Your task to perform on an android device: empty trash in google photos Image 0: 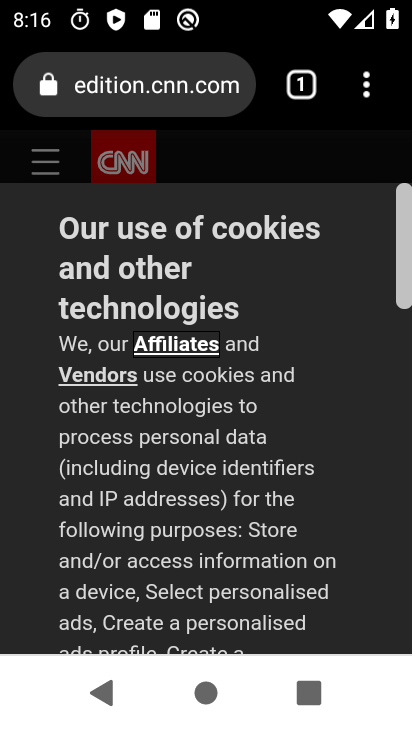
Step 0: press back button
Your task to perform on an android device: empty trash in google photos Image 1: 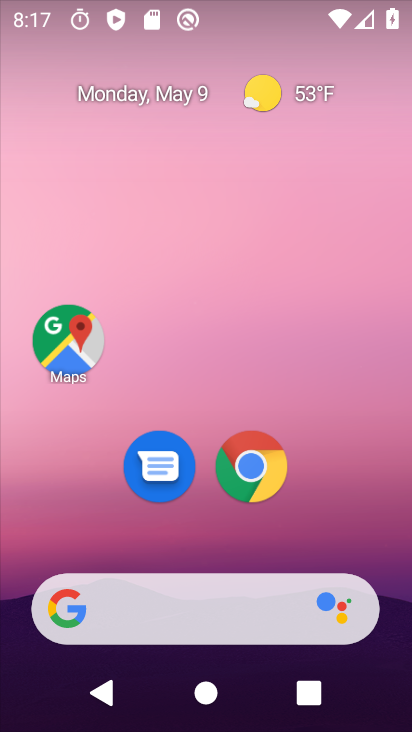
Step 1: drag from (319, 525) to (253, 74)
Your task to perform on an android device: empty trash in google photos Image 2: 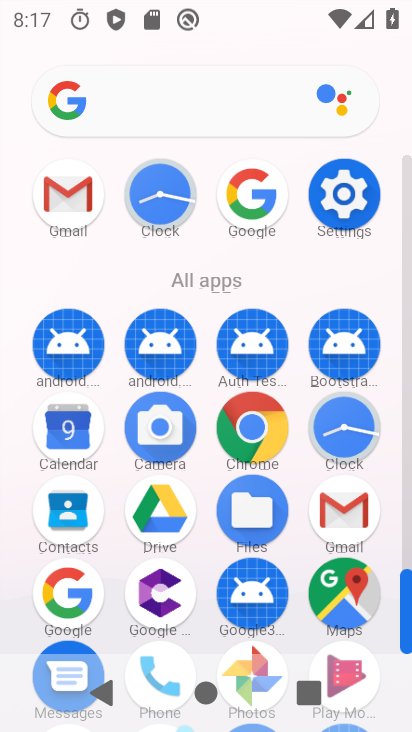
Step 2: drag from (205, 556) to (254, 258)
Your task to perform on an android device: empty trash in google photos Image 3: 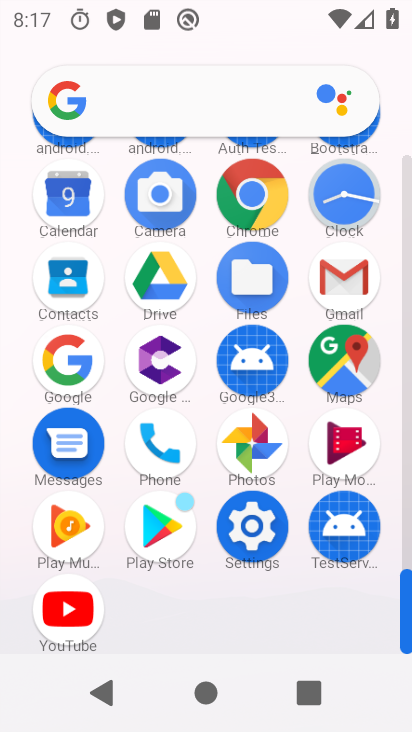
Step 3: click (250, 442)
Your task to perform on an android device: empty trash in google photos Image 4: 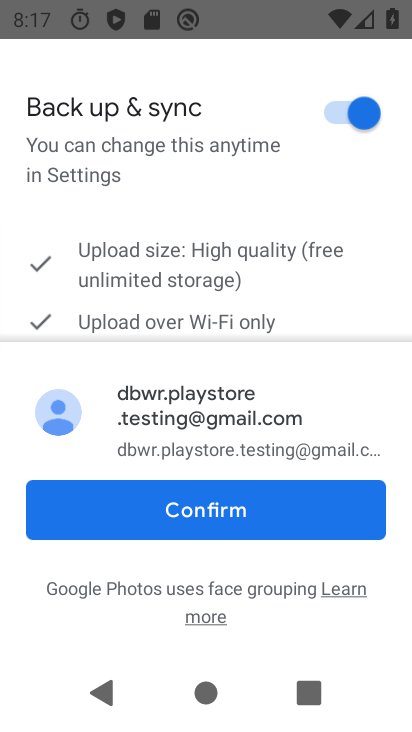
Step 4: click (224, 502)
Your task to perform on an android device: empty trash in google photos Image 5: 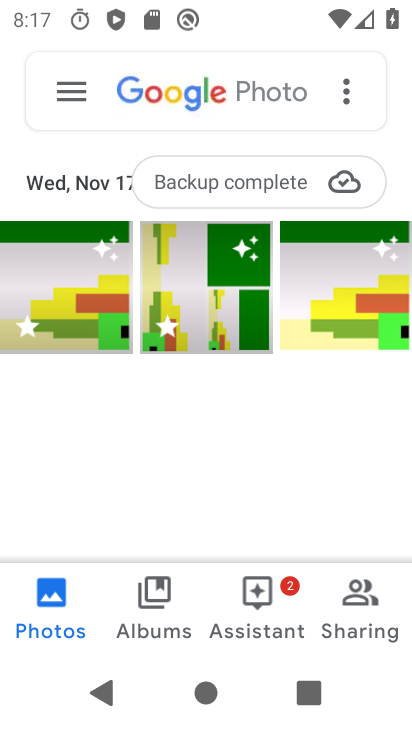
Step 5: click (72, 94)
Your task to perform on an android device: empty trash in google photos Image 6: 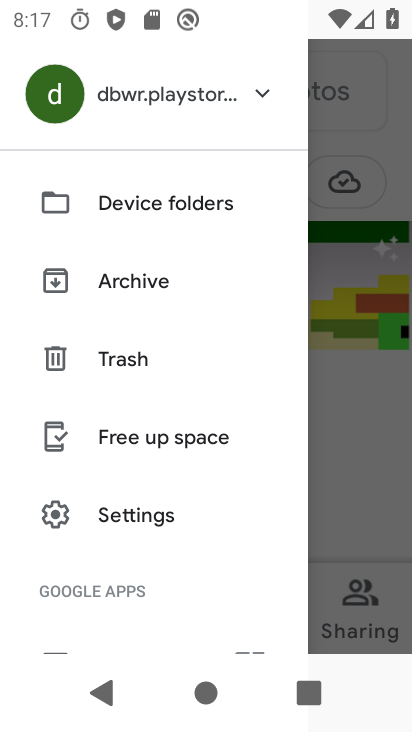
Step 6: click (128, 358)
Your task to perform on an android device: empty trash in google photos Image 7: 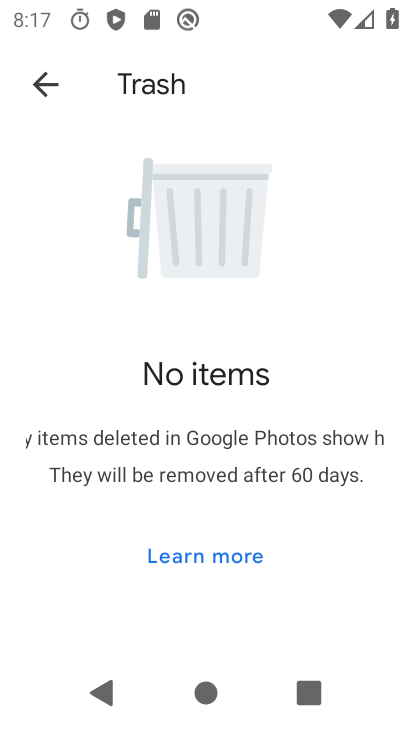
Step 7: task complete